Your task to perform on an android device: change the clock display to show seconds Image 0: 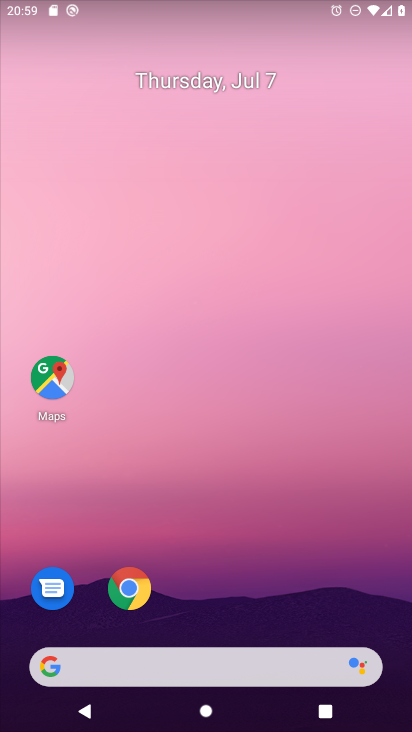
Step 0: drag from (285, 642) to (245, 310)
Your task to perform on an android device: change the clock display to show seconds Image 1: 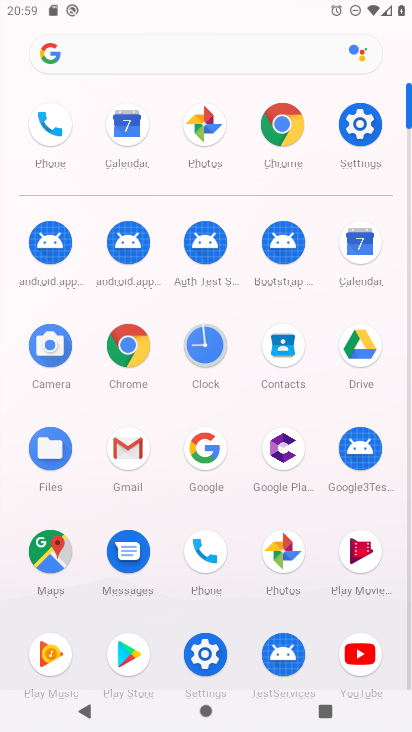
Step 1: click (211, 344)
Your task to perform on an android device: change the clock display to show seconds Image 2: 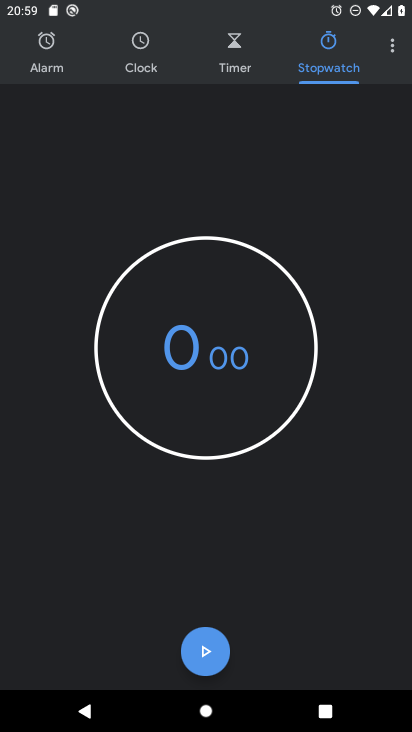
Step 2: click (390, 50)
Your task to perform on an android device: change the clock display to show seconds Image 3: 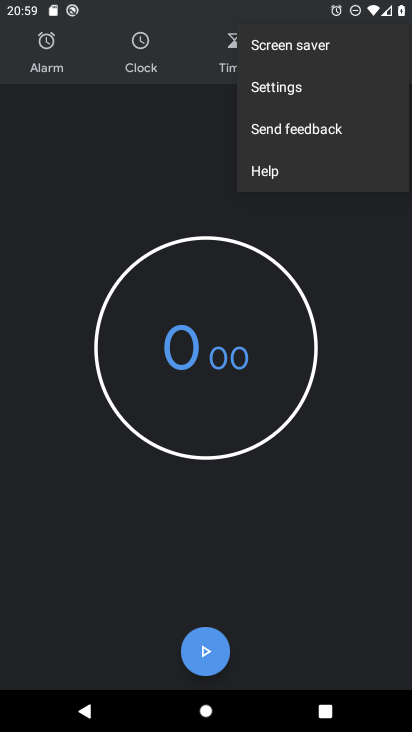
Step 3: click (289, 84)
Your task to perform on an android device: change the clock display to show seconds Image 4: 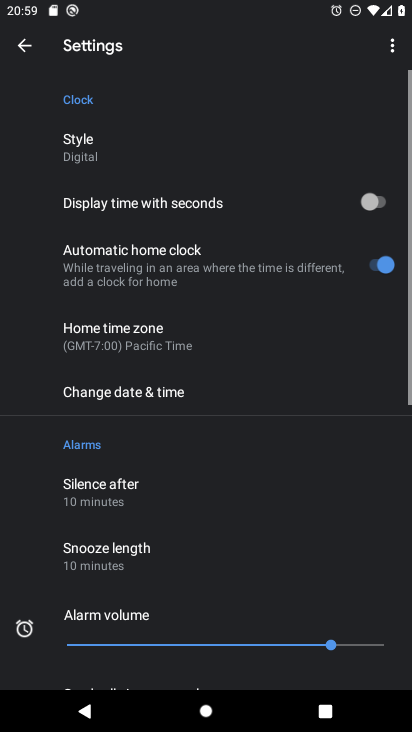
Step 4: click (114, 155)
Your task to perform on an android device: change the clock display to show seconds Image 5: 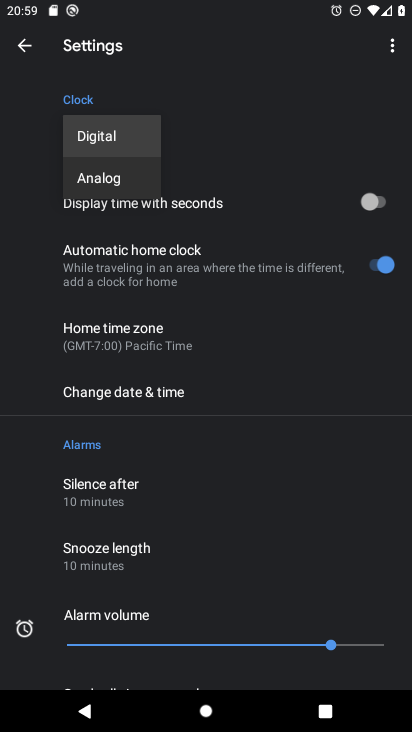
Step 5: click (356, 203)
Your task to perform on an android device: change the clock display to show seconds Image 6: 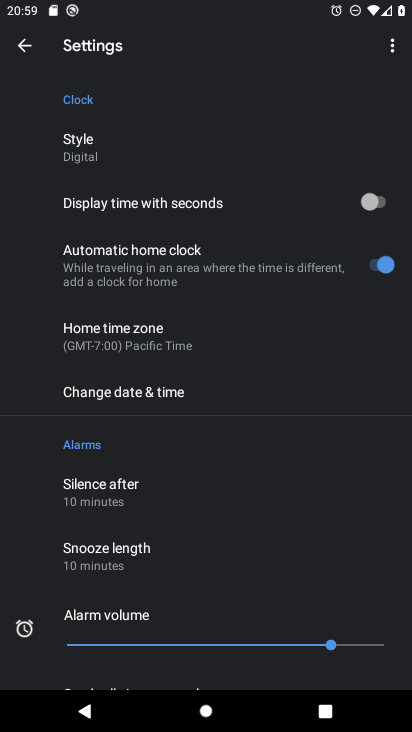
Step 6: click (380, 203)
Your task to perform on an android device: change the clock display to show seconds Image 7: 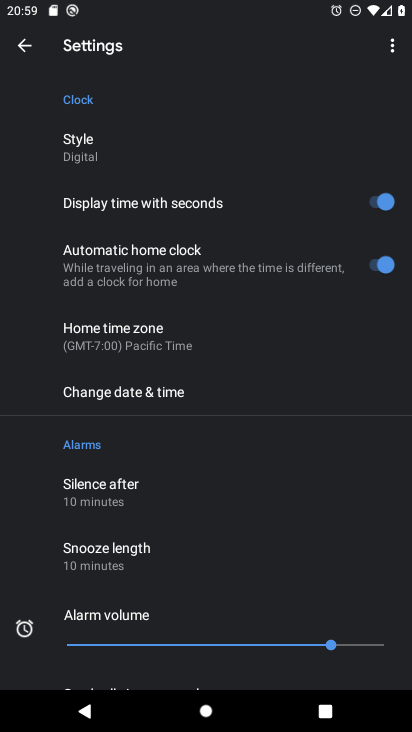
Step 7: task complete